Your task to perform on an android device: Open Google Maps Image 0: 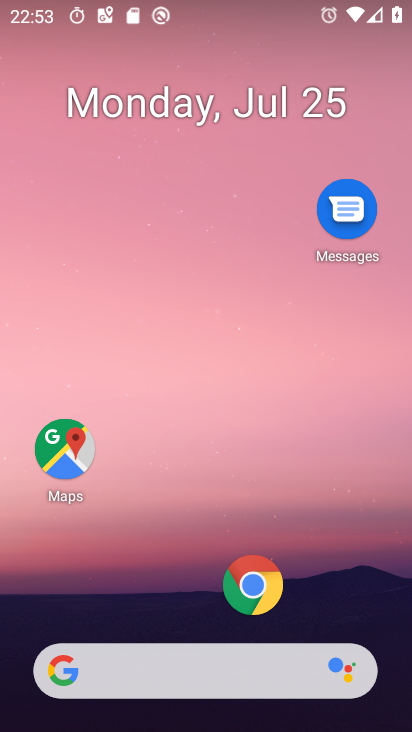
Step 0: press home button
Your task to perform on an android device: Open Google Maps Image 1: 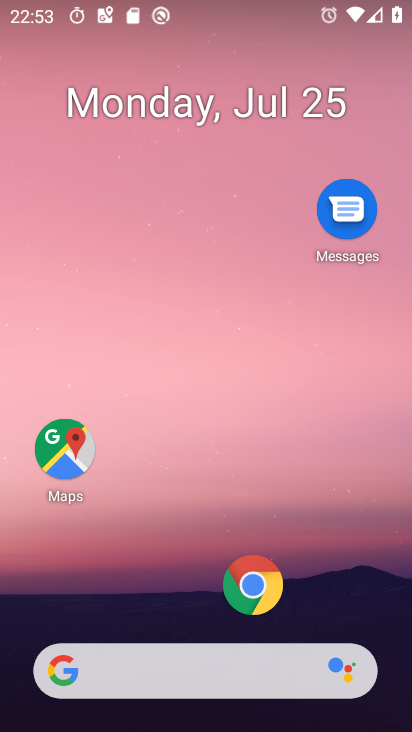
Step 1: click (67, 455)
Your task to perform on an android device: Open Google Maps Image 2: 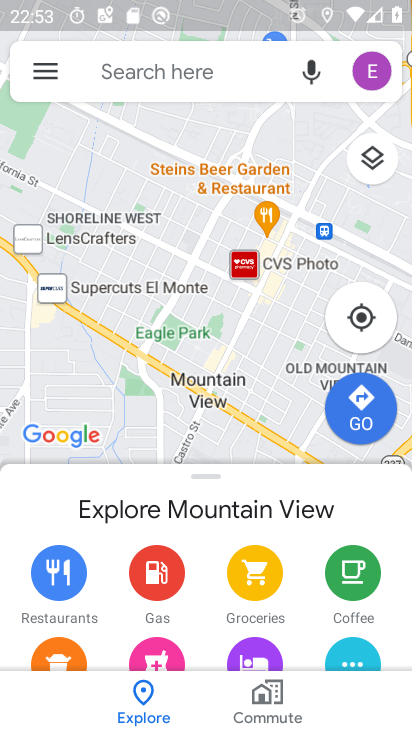
Step 2: task complete